Your task to perform on an android device: find snoozed emails in the gmail app Image 0: 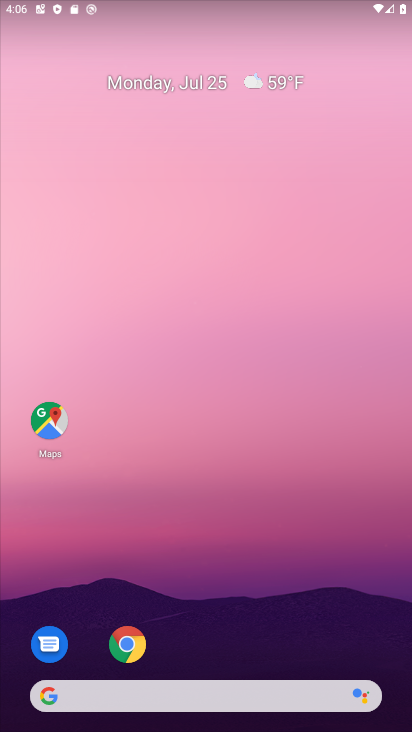
Step 0: drag from (204, 580) to (214, 209)
Your task to perform on an android device: find snoozed emails in the gmail app Image 1: 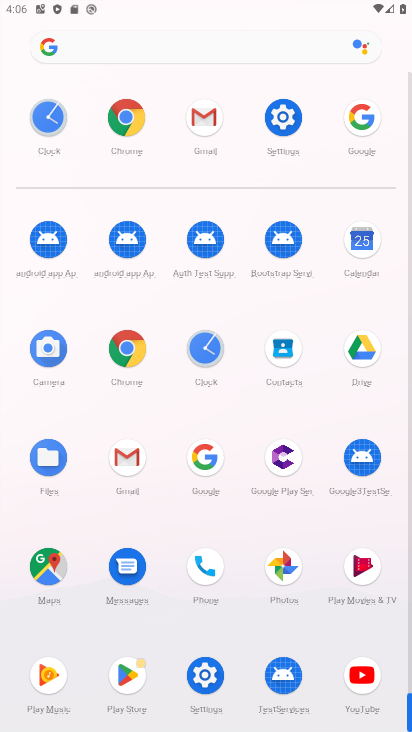
Step 1: click (201, 124)
Your task to perform on an android device: find snoozed emails in the gmail app Image 2: 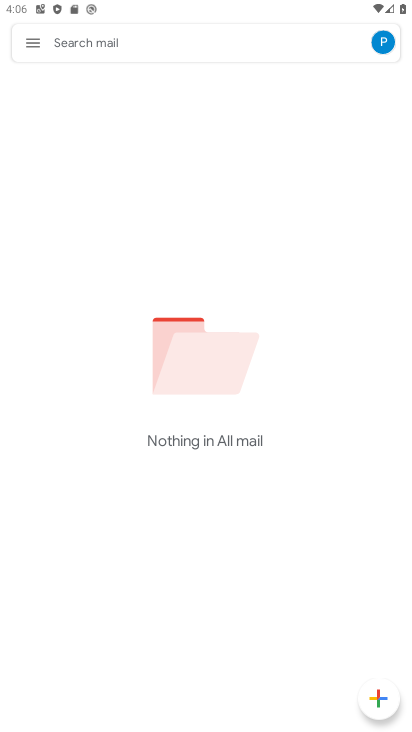
Step 2: click (30, 39)
Your task to perform on an android device: find snoozed emails in the gmail app Image 3: 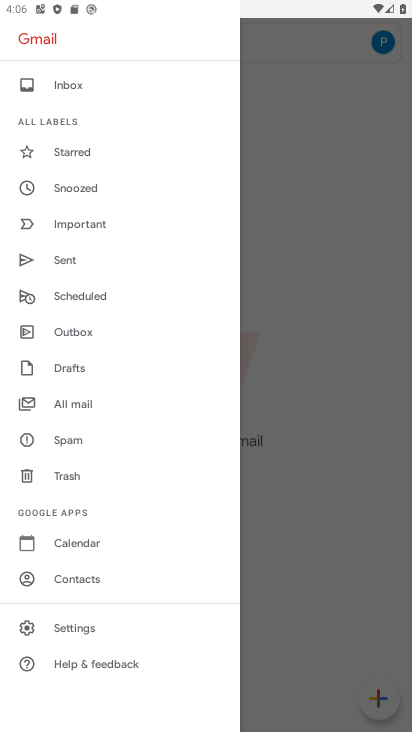
Step 3: click (92, 183)
Your task to perform on an android device: find snoozed emails in the gmail app Image 4: 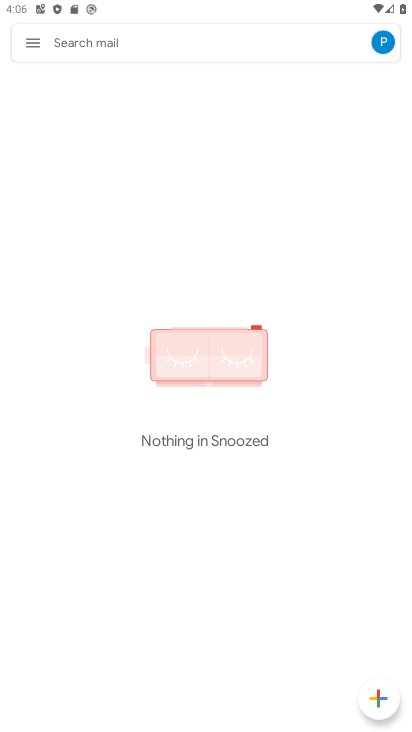
Step 4: task complete